Your task to perform on an android device: Open Google Maps Image 0: 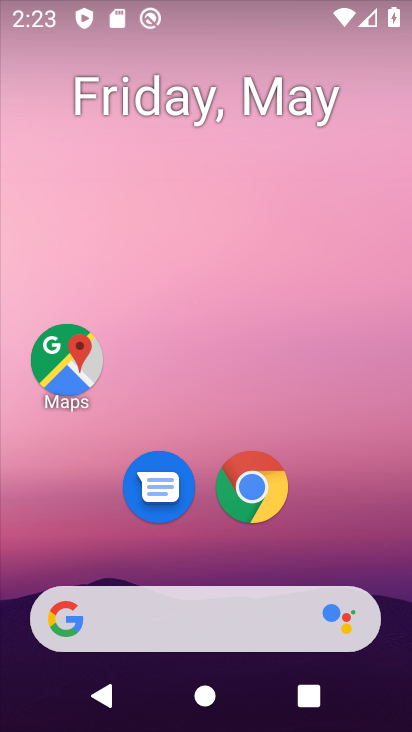
Step 0: click (72, 359)
Your task to perform on an android device: Open Google Maps Image 1: 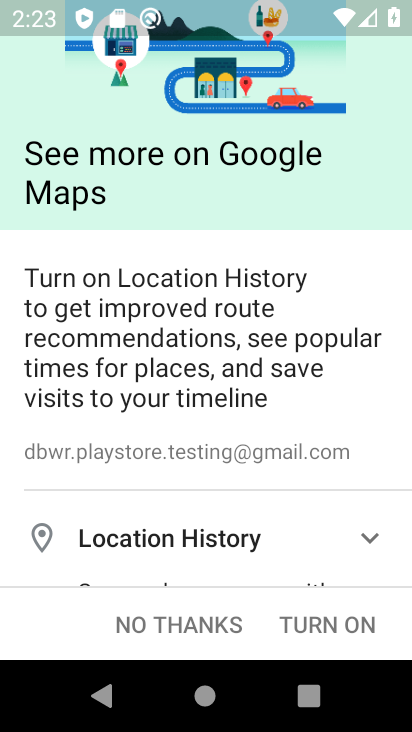
Step 1: task complete